Your task to perform on an android device: Open ESPN.com Image 0: 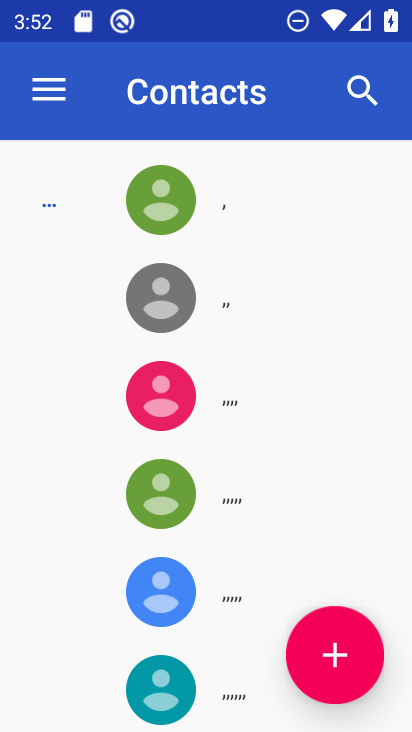
Step 0: press home button
Your task to perform on an android device: Open ESPN.com Image 1: 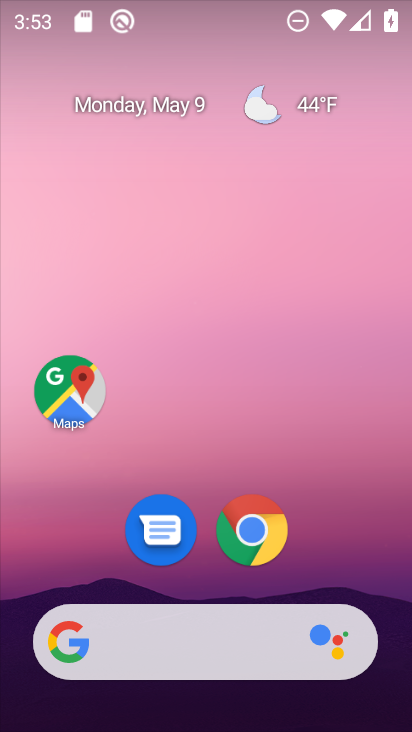
Step 1: click (248, 518)
Your task to perform on an android device: Open ESPN.com Image 2: 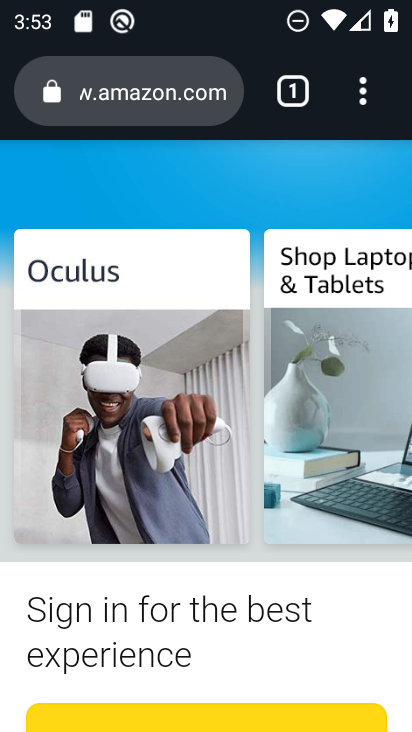
Step 2: drag from (208, 684) to (186, 240)
Your task to perform on an android device: Open ESPN.com Image 3: 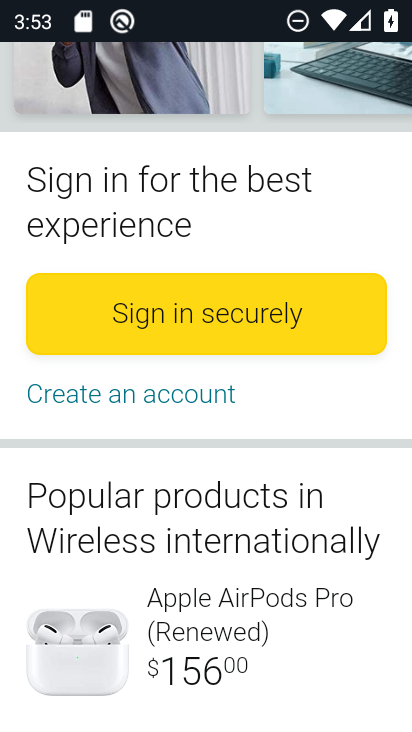
Step 3: drag from (198, 118) to (196, 690)
Your task to perform on an android device: Open ESPN.com Image 4: 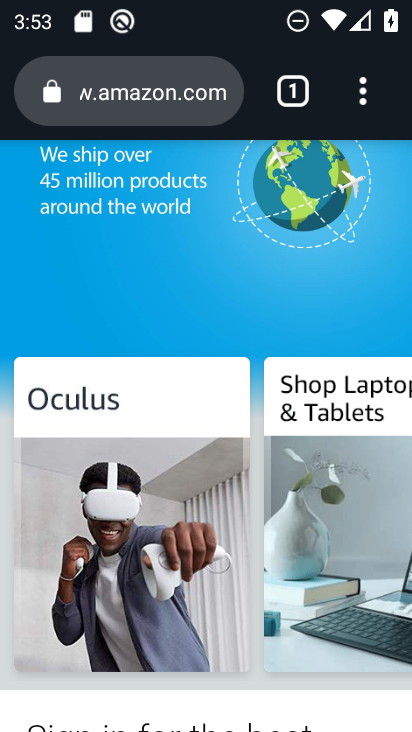
Step 4: click (289, 95)
Your task to perform on an android device: Open ESPN.com Image 5: 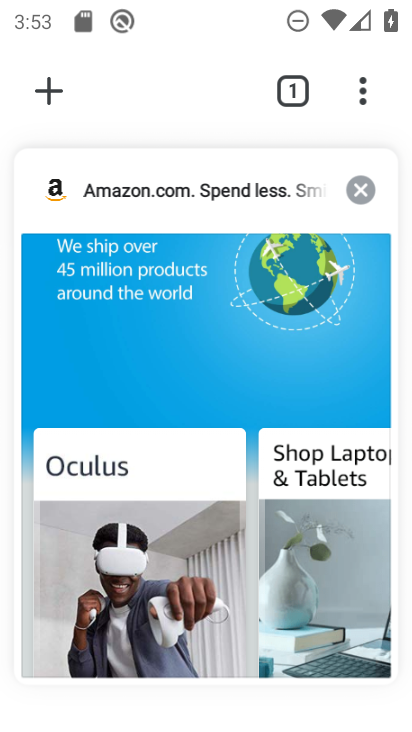
Step 5: click (359, 178)
Your task to perform on an android device: Open ESPN.com Image 6: 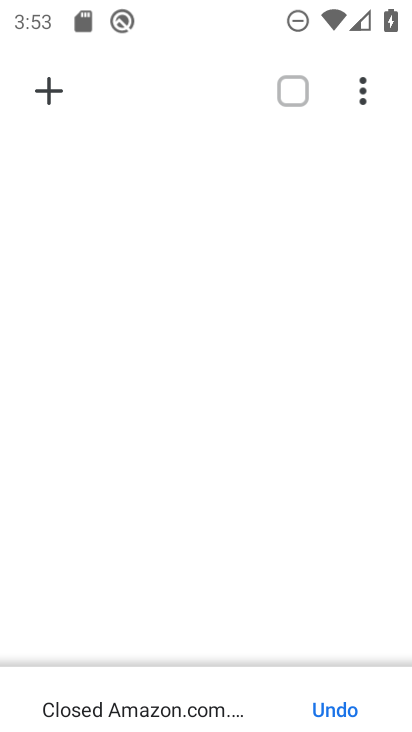
Step 6: click (60, 94)
Your task to perform on an android device: Open ESPN.com Image 7: 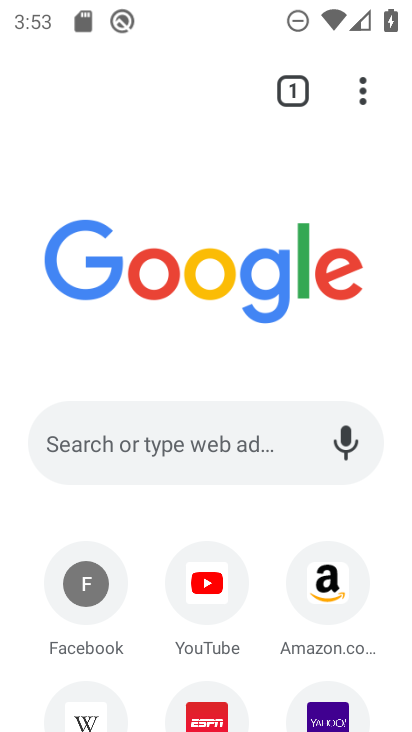
Step 7: click (208, 720)
Your task to perform on an android device: Open ESPN.com Image 8: 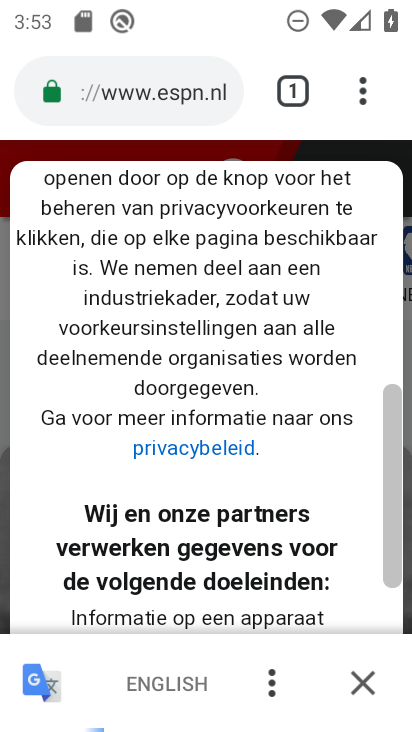
Step 8: click (363, 686)
Your task to perform on an android device: Open ESPN.com Image 9: 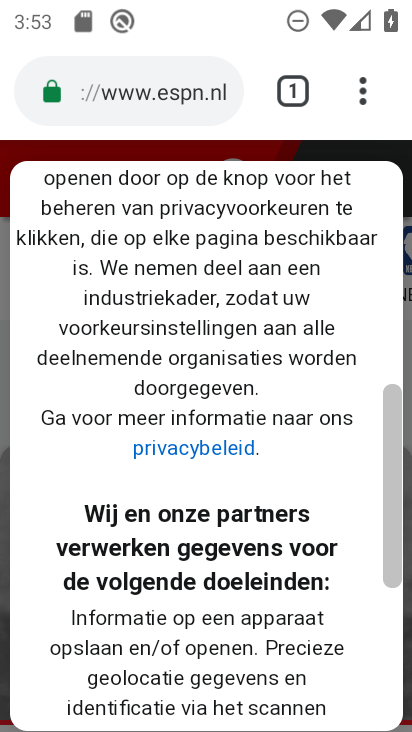
Step 9: drag from (217, 670) to (193, 201)
Your task to perform on an android device: Open ESPN.com Image 10: 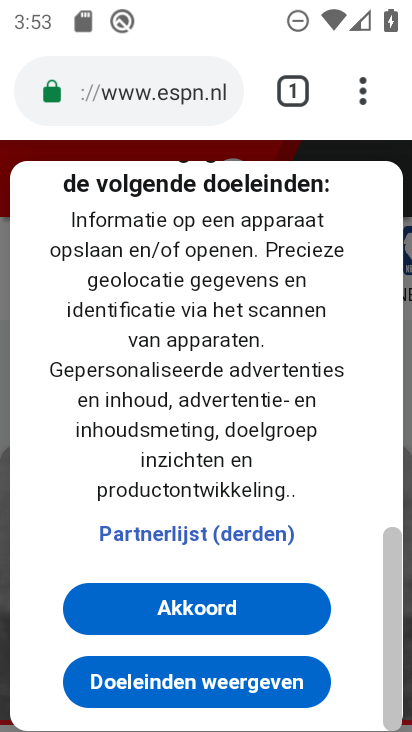
Step 10: click (197, 611)
Your task to perform on an android device: Open ESPN.com Image 11: 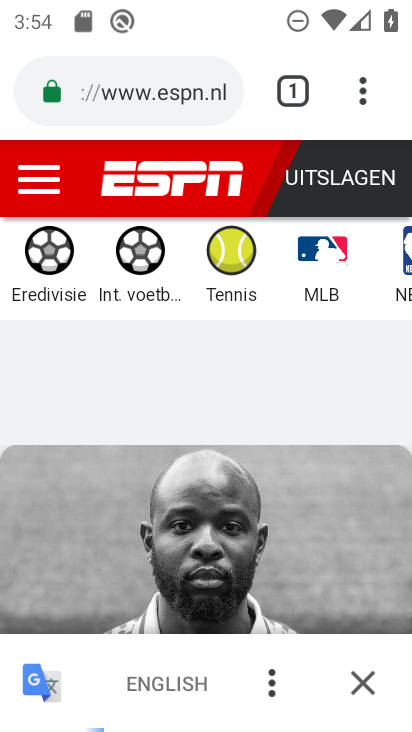
Step 11: task complete